Your task to perform on an android device: set the stopwatch Image 0: 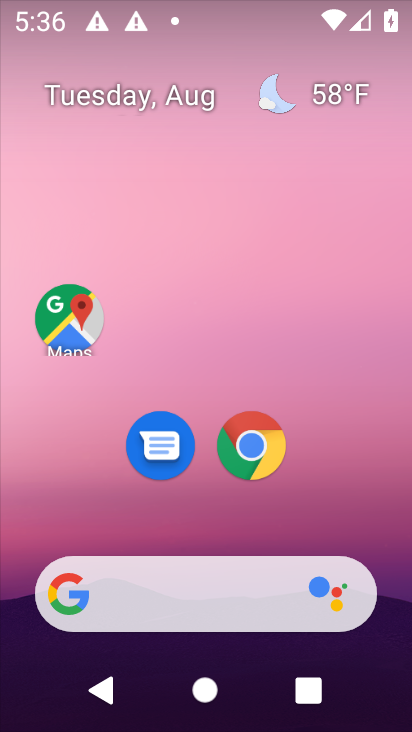
Step 0: click (214, 48)
Your task to perform on an android device: set the stopwatch Image 1: 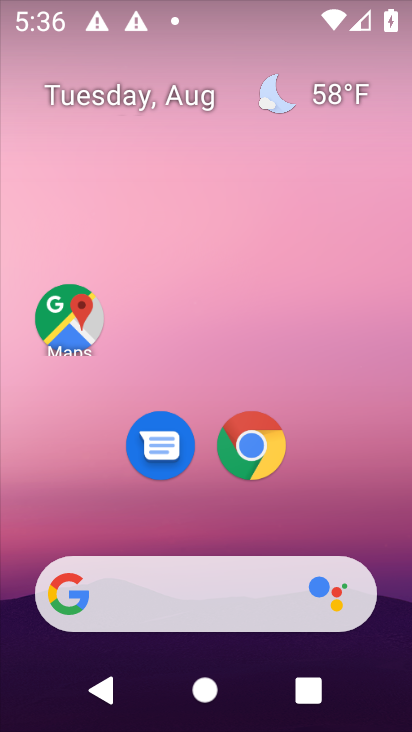
Step 1: drag from (201, 511) to (226, 30)
Your task to perform on an android device: set the stopwatch Image 2: 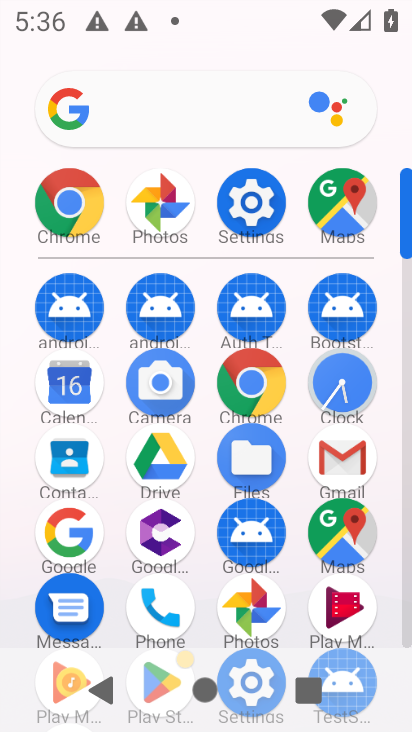
Step 2: click (334, 382)
Your task to perform on an android device: set the stopwatch Image 3: 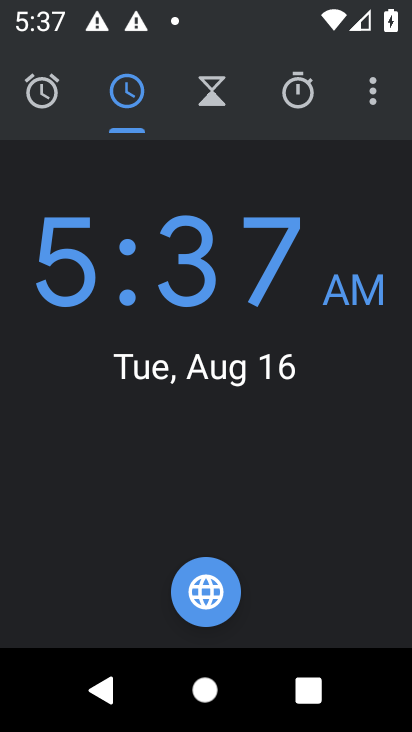
Step 3: click (301, 96)
Your task to perform on an android device: set the stopwatch Image 4: 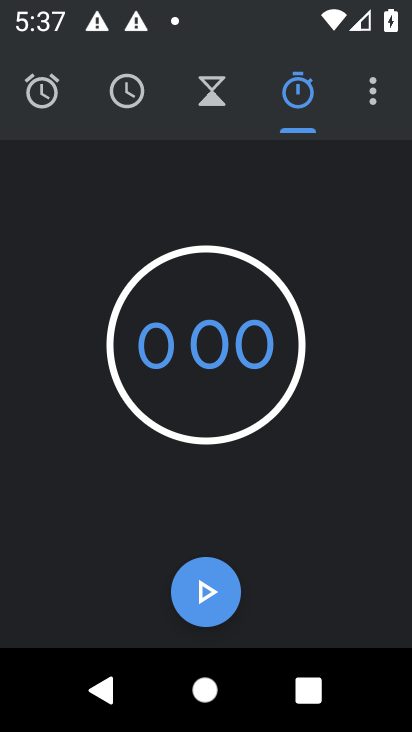
Step 4: click (201, 594)
Your task to perform on an android device: set the stopwatch Image 5: 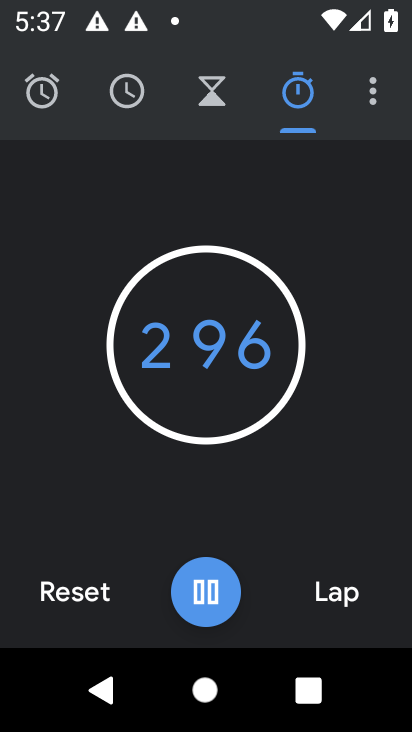
Step 5: click (201, 594)
Your task to perform on an android device: set the stopwatch Image 6: 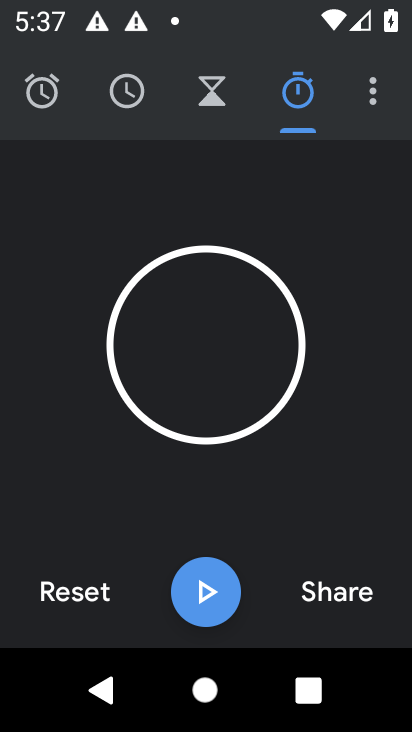
Step 6: task complete